Your task to perform on an android device: set the stopwatch Image 0: 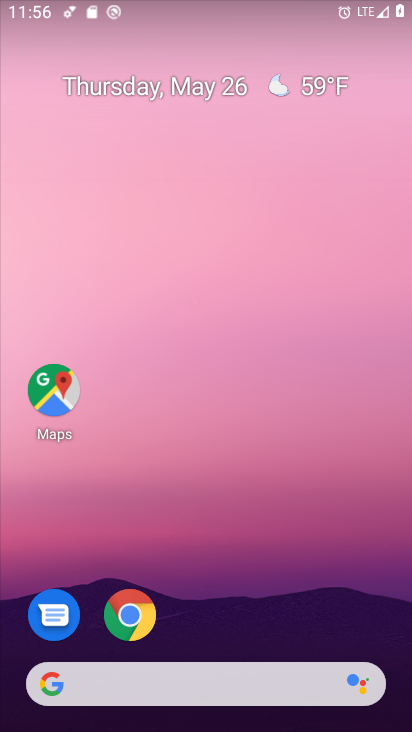
Step 0: drag from (252, 662) to (165, 199)
Your task to perform on an android device: set the stopwatch Image 1: 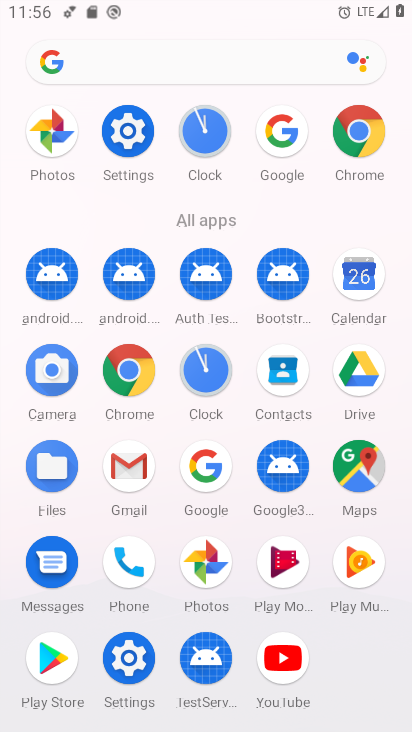
Step 1: click (206, 364)
Your task to perform on an android device: set the stopwatch Image 2: 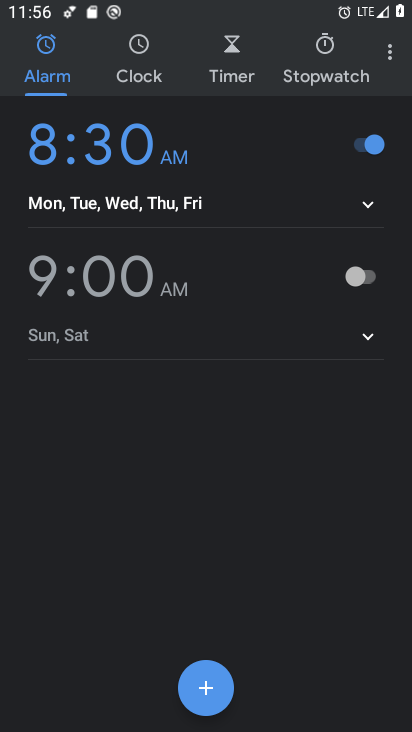
Step 2: click (331, 63)
Your task to perform on an android device: set the stopwatch Image 3: 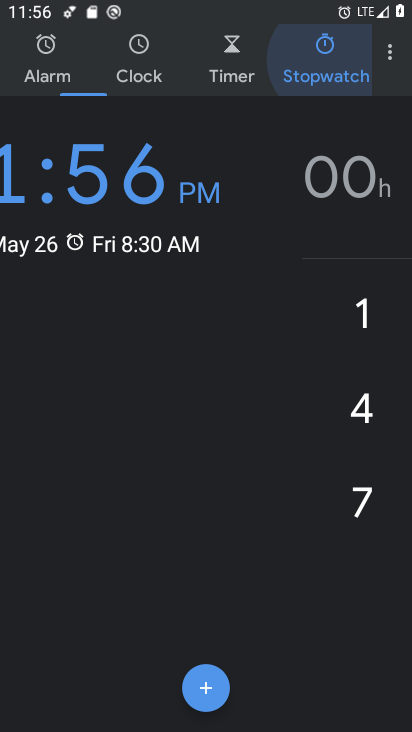
Step 3: click (330, 63)
Your task to perform on an android device: set the stopwatch Image 4: 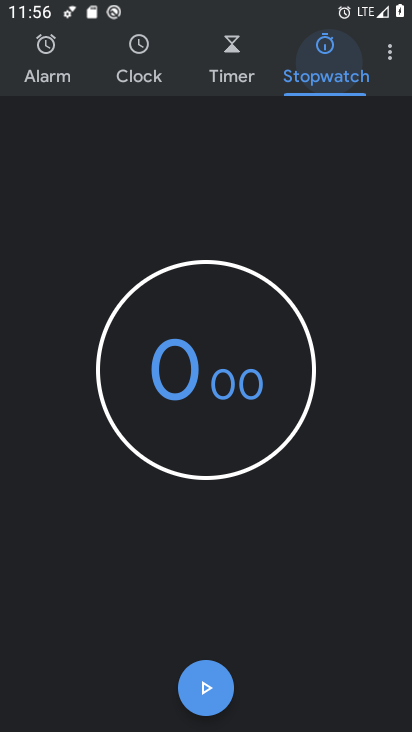
Step 4: click (315, 72)
Your task to perform on an android device: set the stopwatch Image 5: 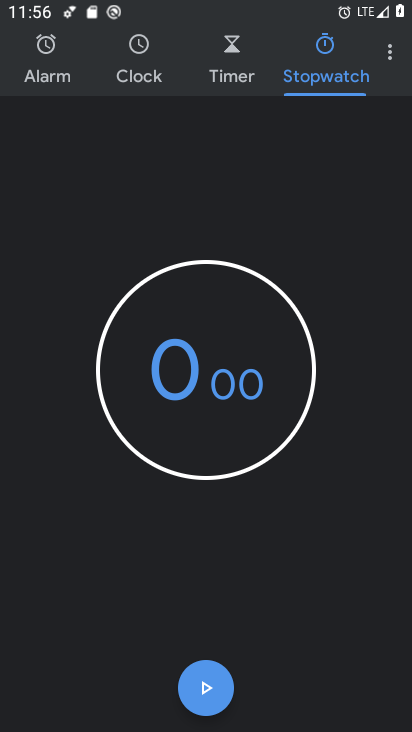
Step 5: click (207, 693)
Your task to perform on an android device: set the stopwatch Image 6: 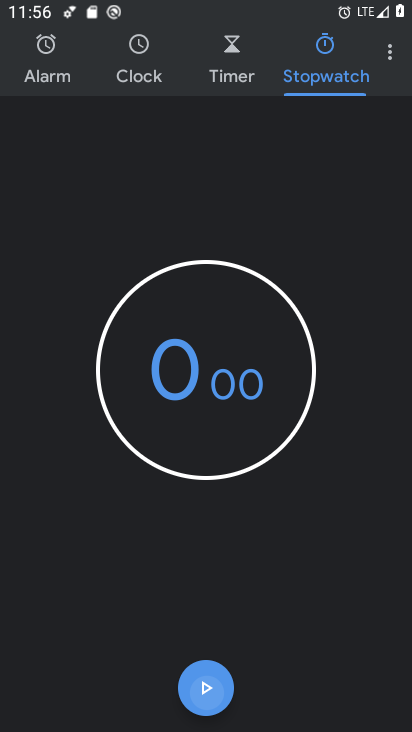
Step 6: click (206, 694)
Your task to perform on an android device: set the stopwatch Image 7: 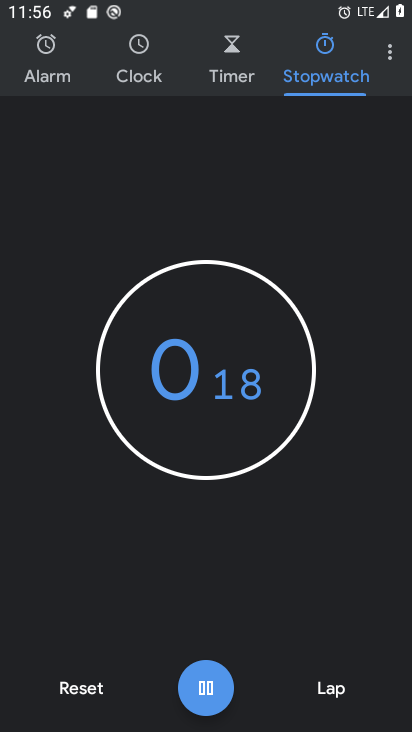
Step 7: click (205, 695)
Your task to perform on an android device: set the stopwatch Image 8: 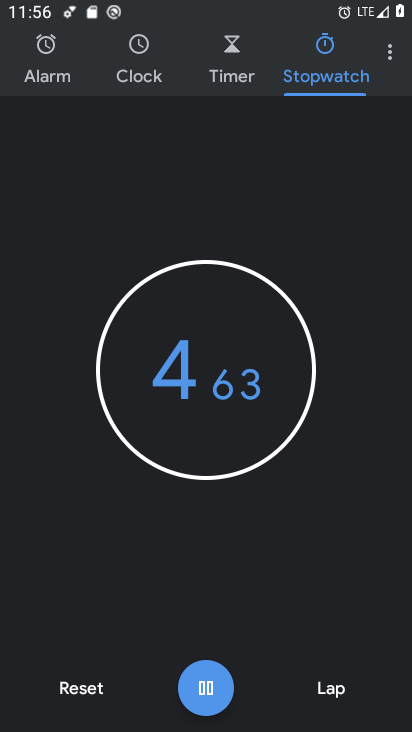
Step 8: click (201, 679)
Your task to perform on an android device: set the stopwatch Image 9: 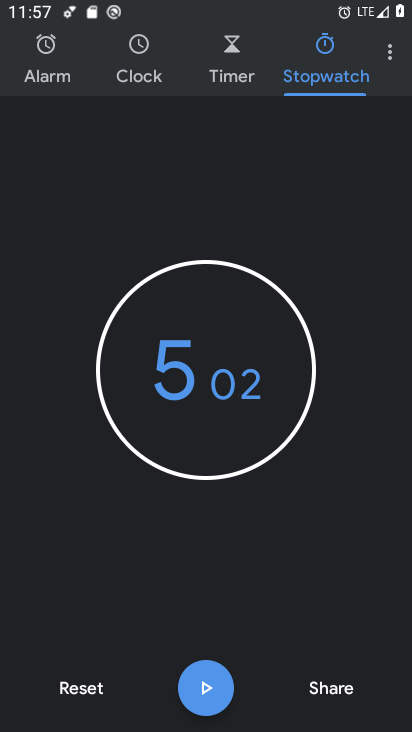
Step 9: task complete